Your task to perform on an android device: Check the settings for the Twitter app Image 0: 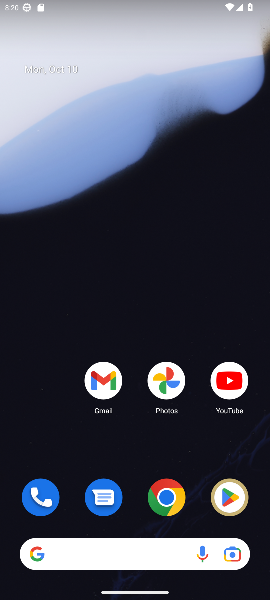
Step 0: drag from (142, 482) to (143, 208)
Your task to perform on an android device: Check the settings for the Twitter app Image 1: 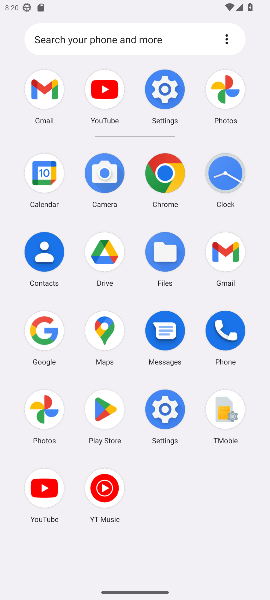
Step 1: click (48, 335)
Your task to perform on an android device: Check the settings for the Twitter app Image 2: 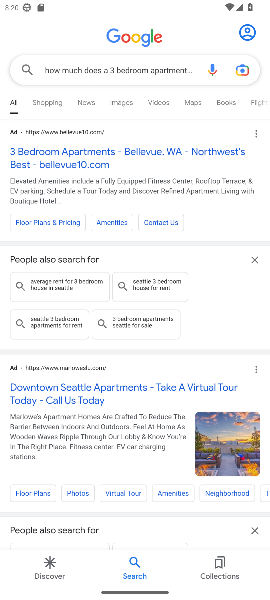
Step 2: click (130, 65)
Your task to perform on an android device: Check the settings for the Twitter app Image 3: 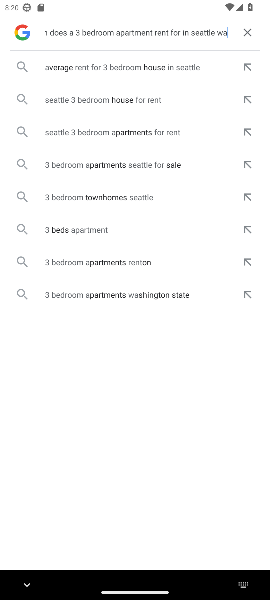
Step 3: click (109, 26)
Your task to perform on an android device: Check the settings for the Twitter app Image 4: 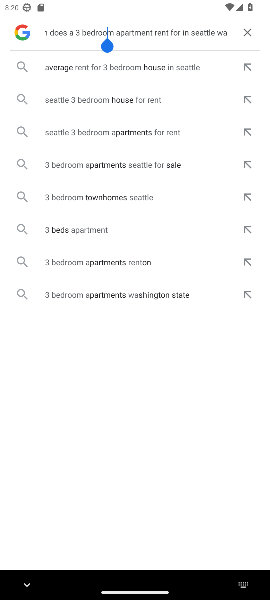
Step 4: click (242, 29)
Your task to perform on an android device: Check the settings for the Twitter app Image 5: 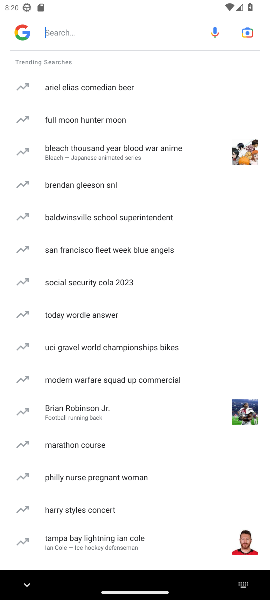
Step 5: click (93, 33)
Your task to perform on an android device: Check the settings for the Twitter app Image 6: 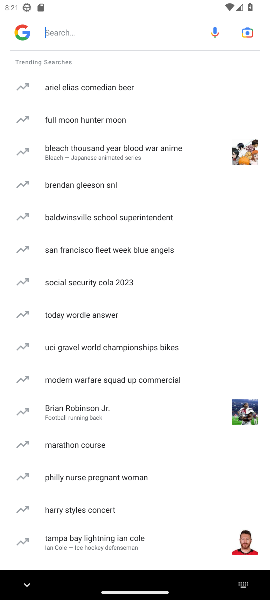
Step 6: type "Check the settings for the Twitter app "
Your task to perform on an android device: Check the settings for the Twitter app Image 7: 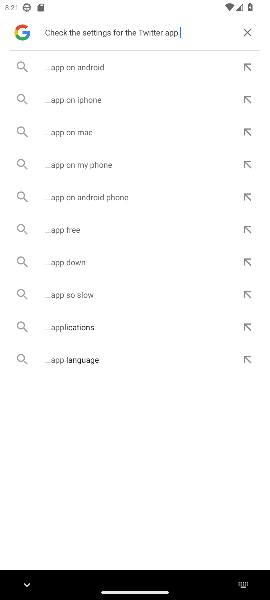
Step 7: click (100, 65)
Your task to perform on an android device: Check the settings for the Twitter app Image 8: 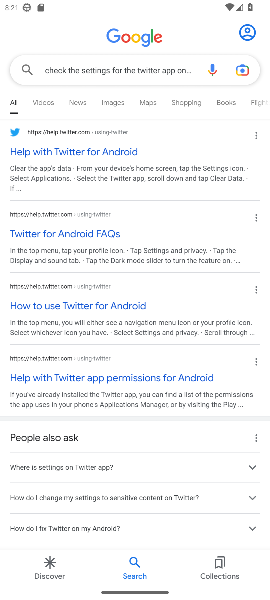
Step 8: click (79, 233)
Your task to perform on an android device: Check the settings for the Twitter app Image 9: 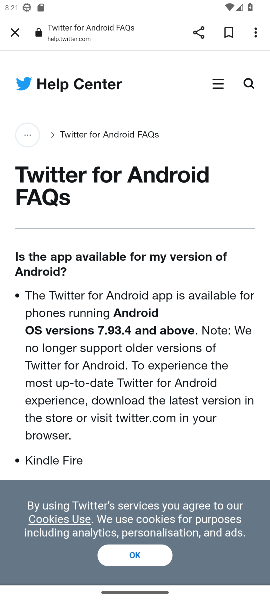
Step 9: drag from (102, 420) to (133, 221)
Your task to perform on an android device: Check the settings for the Twitter app Image 10: 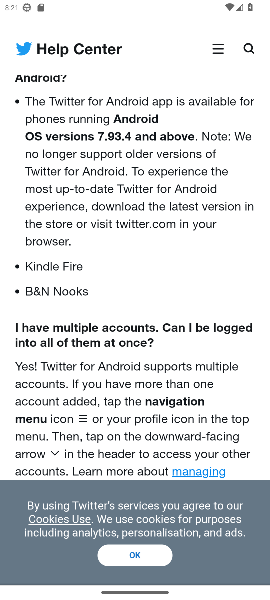
Step 10: click (159, 551)
Your task to perform on an android device: Check the settings for the Twitter app Image 11: 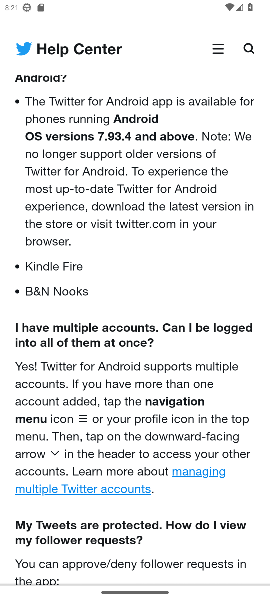
Step 11: drag from (149, 451) to (143, 181)
Your task to perform on an android device: Check the settings for the Twitter app Image 12: 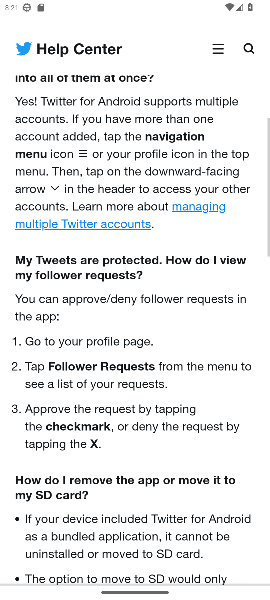
Step 12: drag from (105, 483) to (119, 289)
Your task to perform on an android device: Check the settings for the Twitter app Image 13: 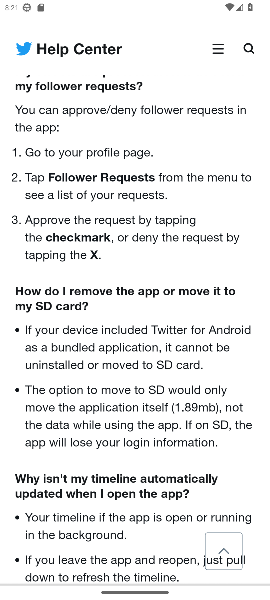
Step 13: press home button
Your task to perform on an android device: Check the settings for the Twitter app Image 14: 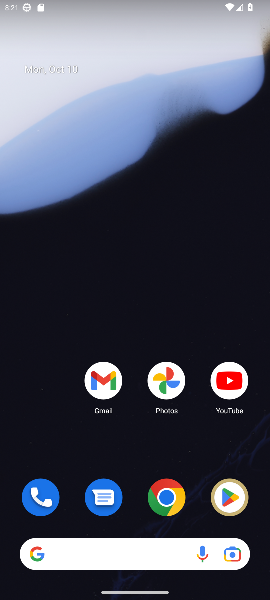
Step 14: drag from (164, 521) to (183, 314)
Your task to perform on an android device: Check the settings for the Twitter app Image 15: 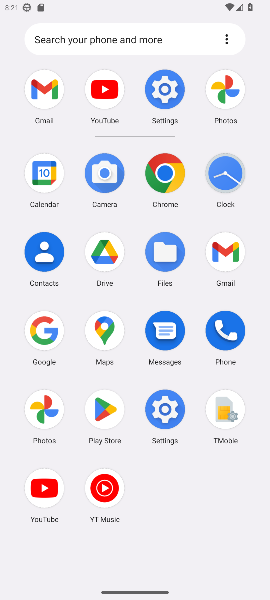
Step 15: click (100, 406)
Your task to perform on an android device: Check the settings for the Twitter app Image 16: 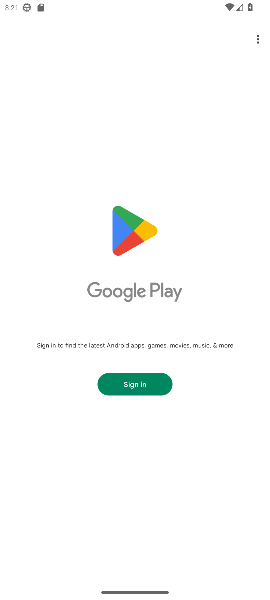
Step 16: click (147, 378)
Your task to perform on an android device: Check the settings for the Twitter app Image 17: 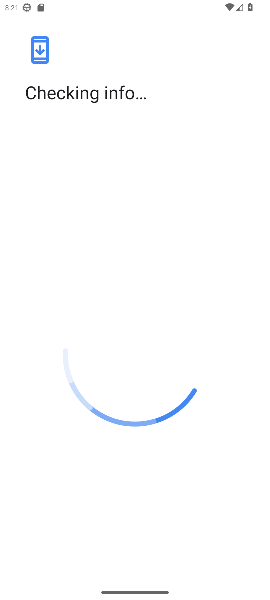
Step 17: task complete